Your task to perform on an android device: change your default location settings in chrome Image 0: 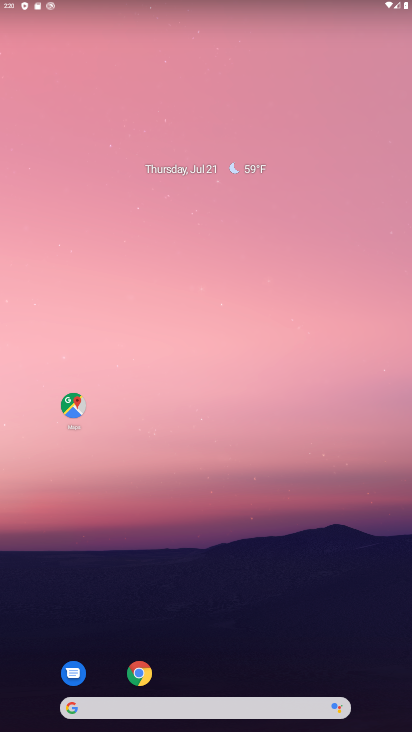
Step 0: click (139, 674)
Your task to perform on an android device: change your default location settings in chrome Image 1: 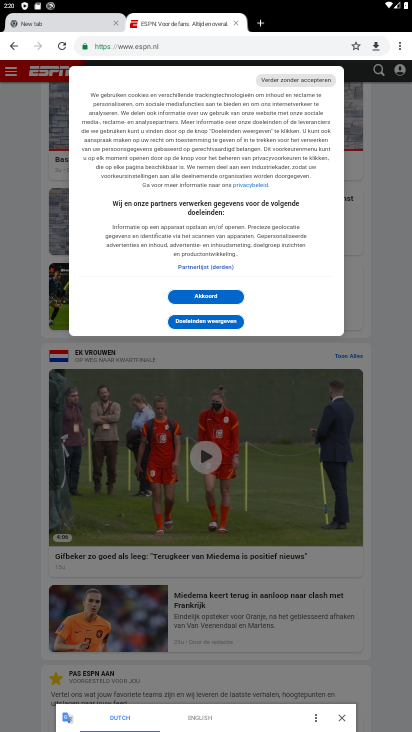
Step 1: click (398, 47)
Your task to perform on an android device: change your default location settings in chrome Image 2: 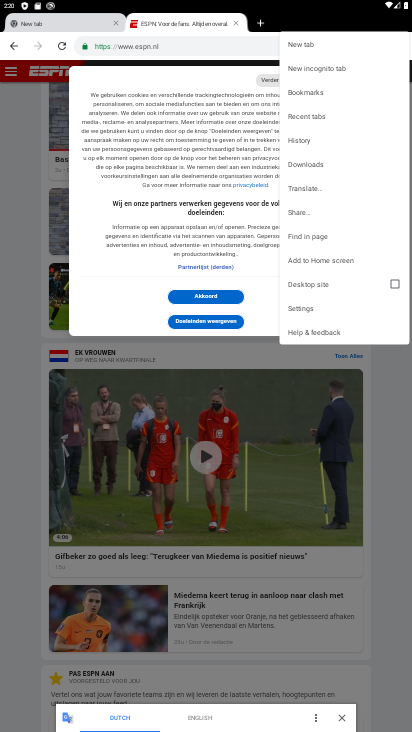
Step 2: click (298, 312)
Your task to perform on an android device: change your default location settings in chrome Image 3: 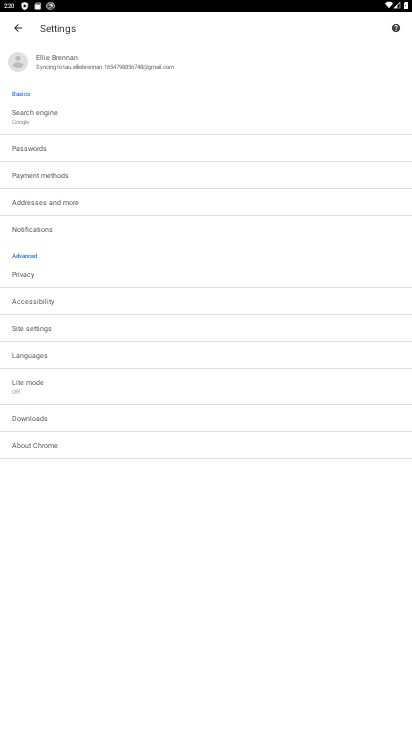
Step 3: click (38, 325)
Your task to perform on an android device: change your default location settings in chrome Image 4: 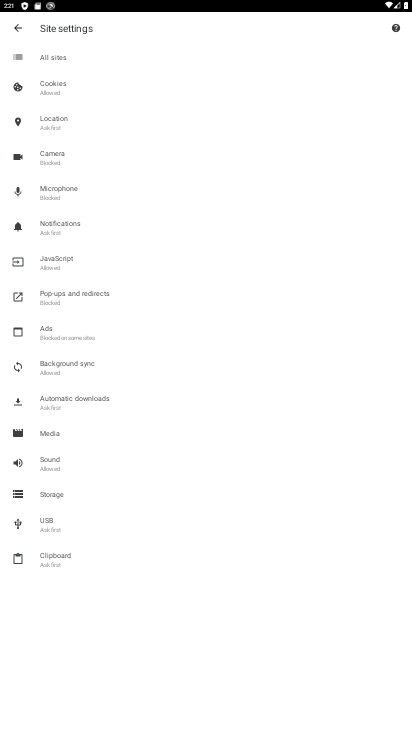
Step 4: click (52, 126)
Your task to perform on an android device: change your default location settings in chrome Image 5: 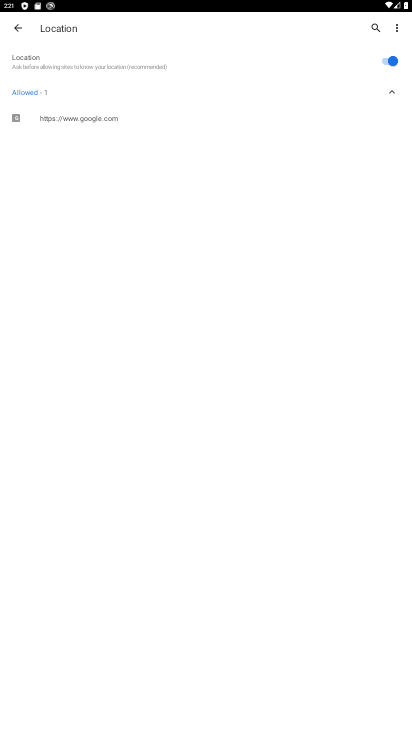
Step 5: click (385, 60)
Your task to perform on an android device: change your default location settings in chrome Image 6: 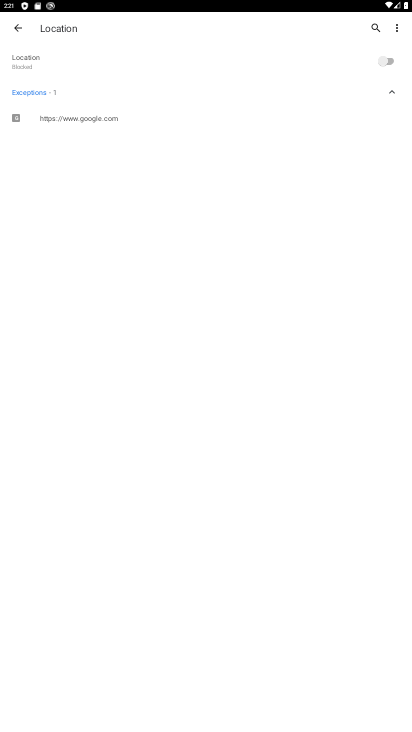
Step 6: task complete